Your task to perform on an android device: open the mobile data screen to see how much data has been used Image 0: 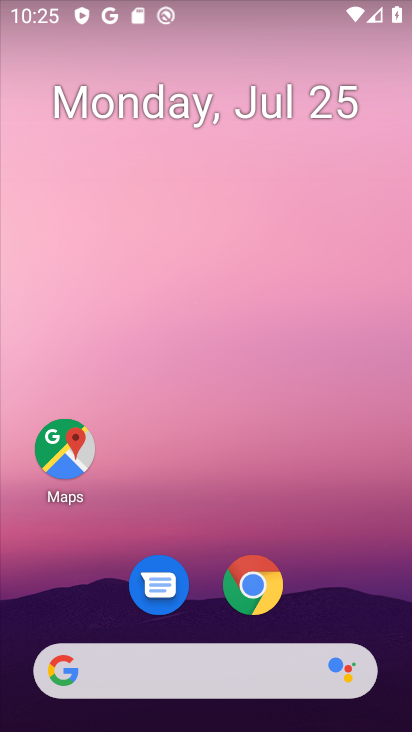
Step 0: drag from (336, 453) to (323, 18)
Your task to perform on an android device: open the mobile data screen to see how much data has been used Image 1: 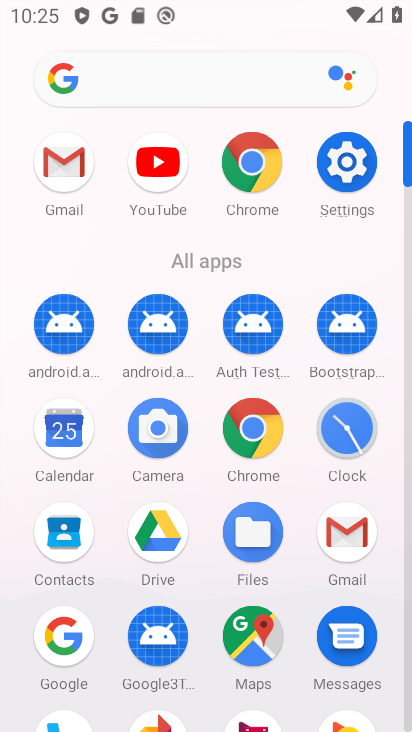
Step 1: click (350, 157)
Your task to perform on an android device: open the mobile data screen to see how much data has been used Image 2: 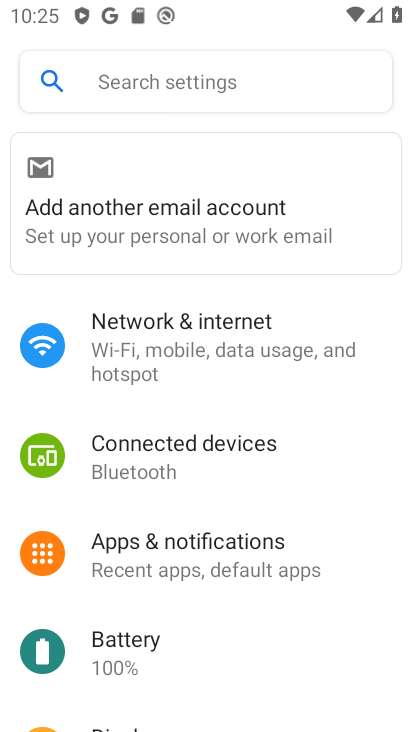
Step 2: click (239, 336)
Your task to perform on an android device: open the mobile data screen to see how much data has been used Image 3: 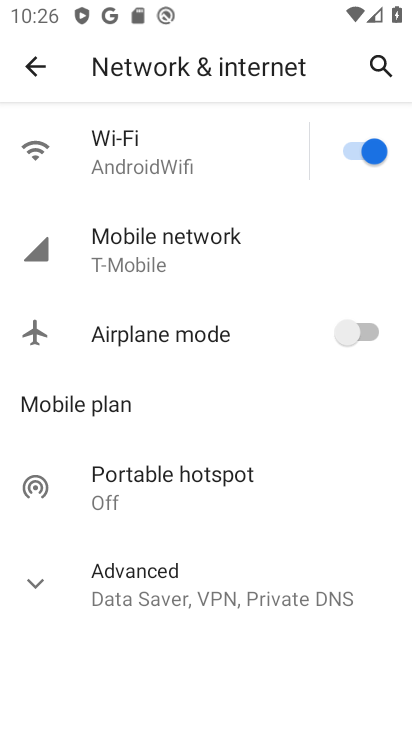
Step 3: click (225, 240)
Your task to perform on an android device: open the mobile data screen to see how much data has been used Image 4: 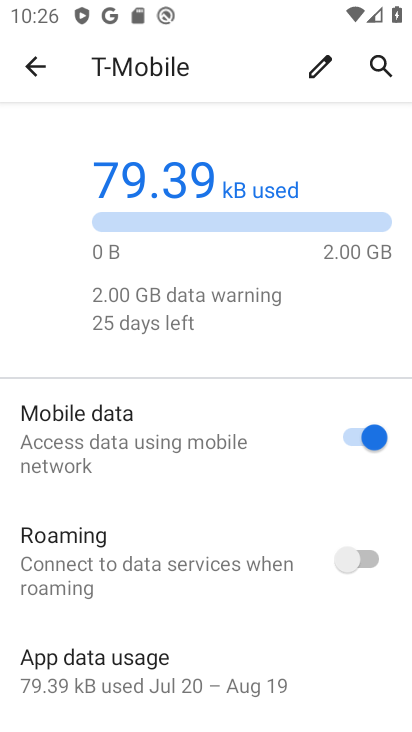
Step 4: task complete